Your task to perform on an android device: delete location history Image 0: 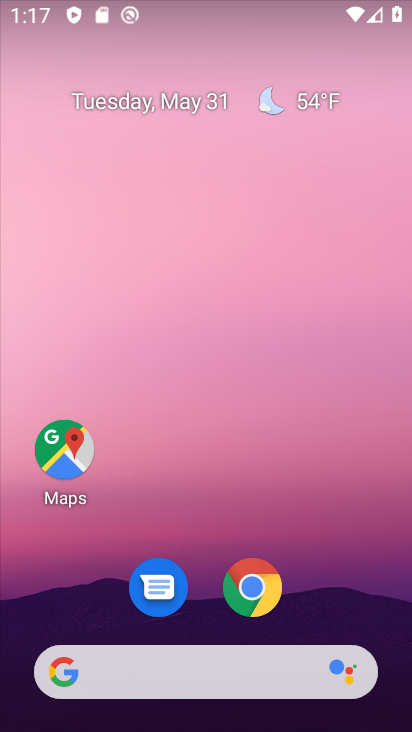
Step 0: drag from (216, 609) to (238, 187)
Your task to perform on an android device: delete location history Image 1: 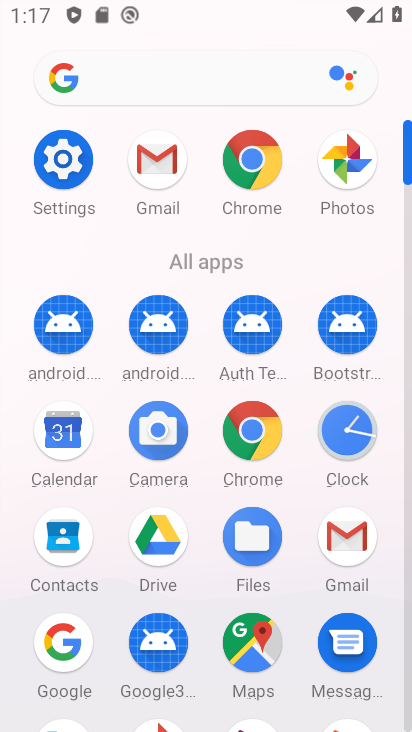
Step 1: click (66, 159)
Your task to perform on an android device: delete location history Image 2: 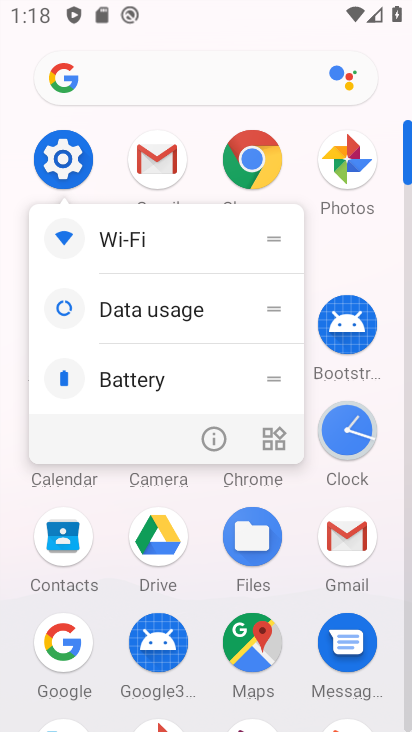
Step 2: click (207, 428)
Your task to perform on an android device: delete location history Image 3: 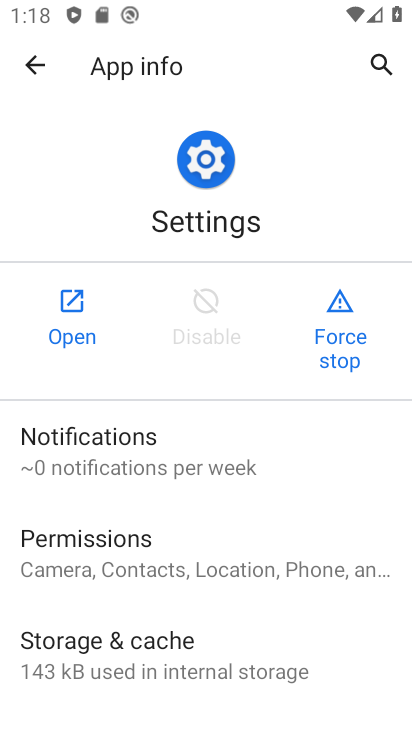
Step 3: click (69, 322)
Your task to perform on an android device: delete location history Image 4: 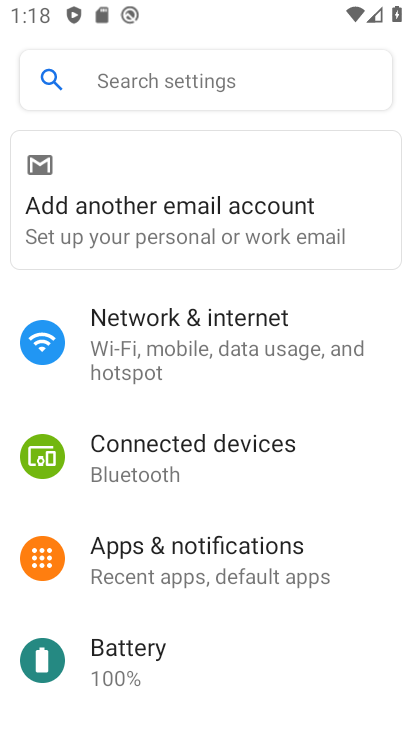
Step 4: drag from (205, 635) to (269, 227)
Your task to perform on an android device: delete location history Image 5: 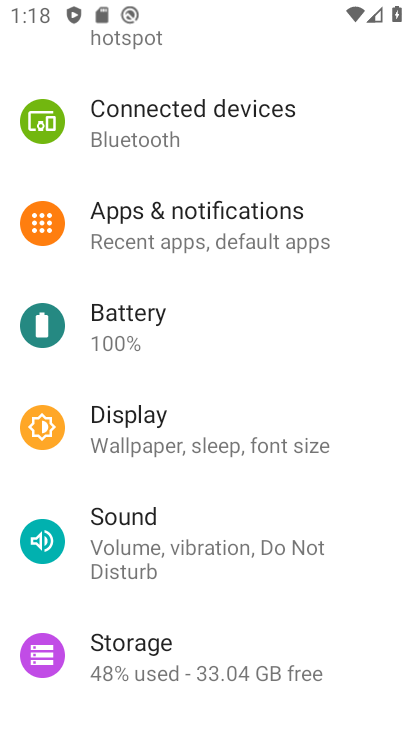
Step 5: drag from (169, 577) to (223, 189)
Your task to perform on an android device: delete location history Image 6: 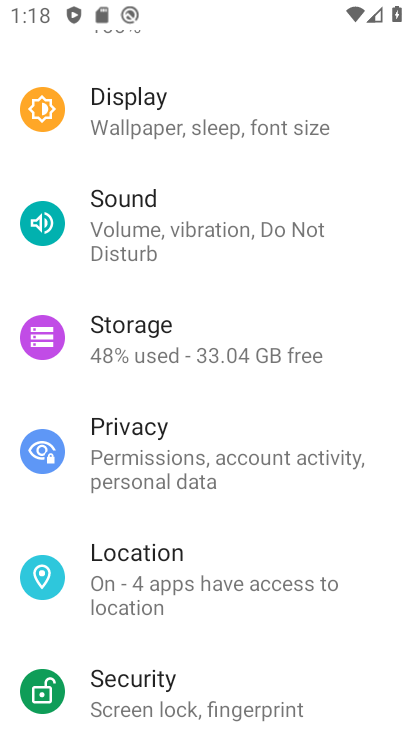
Step 6: click (133, 589)
Your task to perform on an android device: delete location history Image 7: 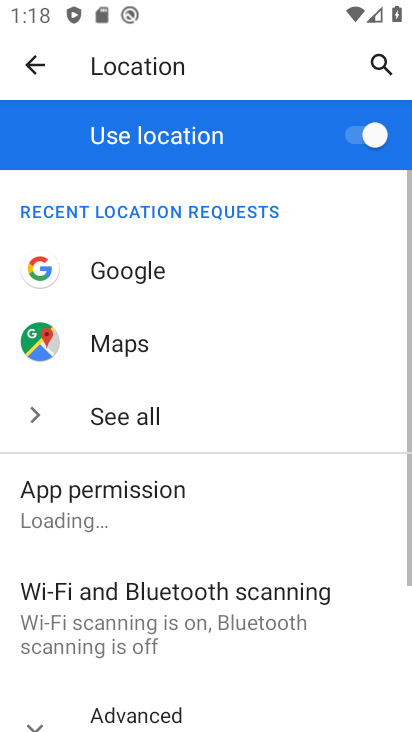
Step 7: drag from (214, 617) to (282, 179)
Your task to perform on an android device: delete location history Image 8: 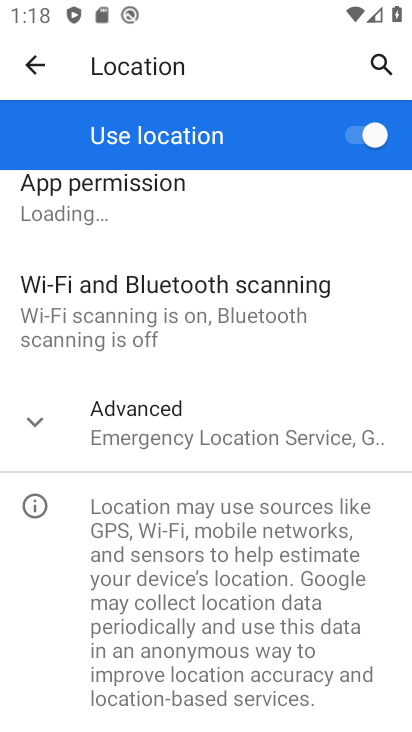
Step 8: click (125, 442)
Your task to perform on an android device: delete location history Image 9: 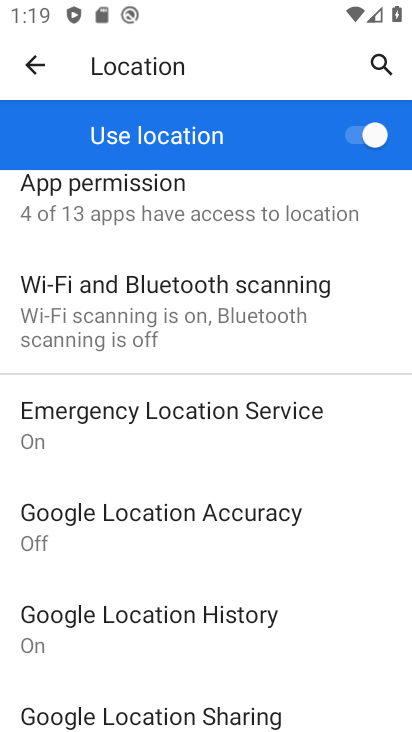
Step 9: drag from (182, 547) to (221, 259)
Your task to perform on an android device: delete location history Image 10: 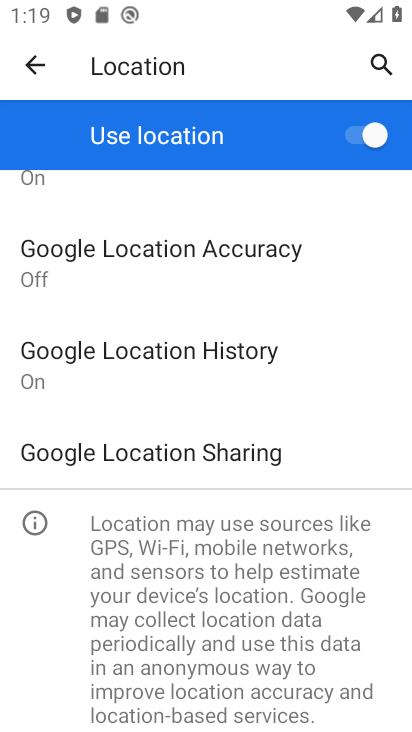
Step 10: click (111, 272)
Your task to perform on an android device: delete location history Image 11: 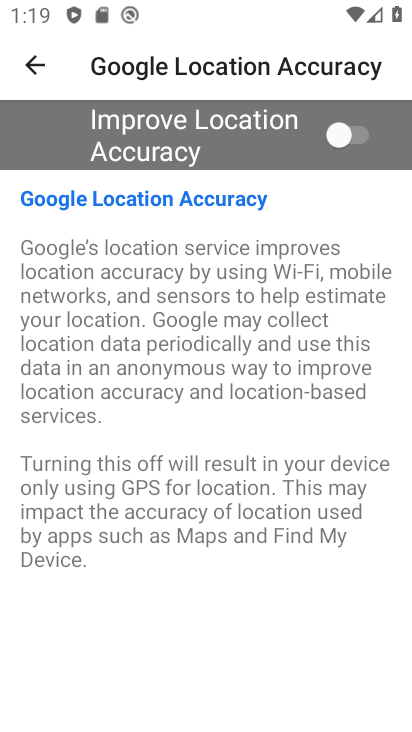
Step 11: drag from (174, 491) to (197, 232)
Your task to perform on an android device: delete location history Image 12: 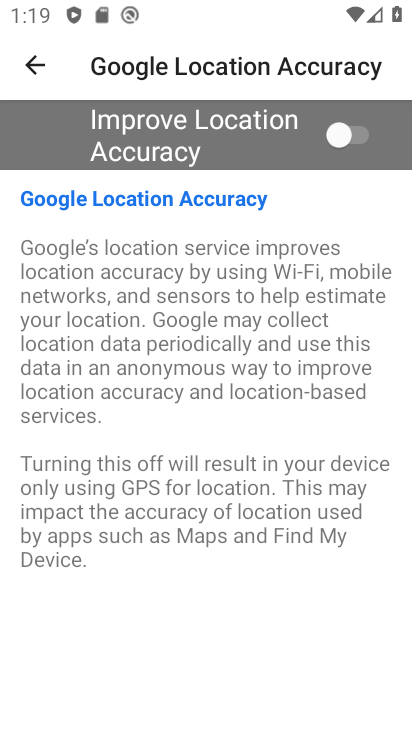
Step 12: drag from (186, 254) to (221, 433)
Your task to perform on an android device: delete location history Image 13: 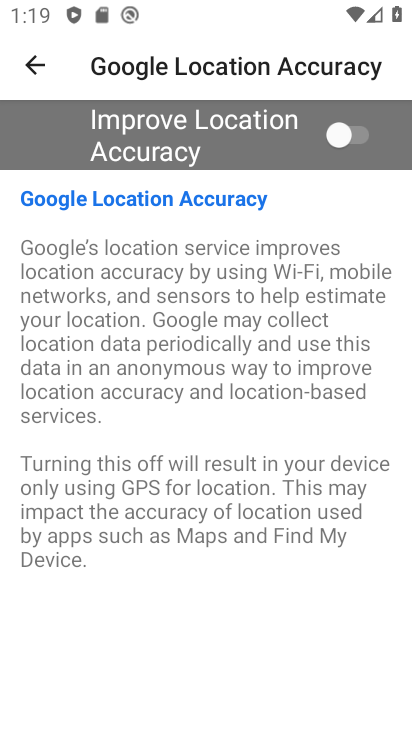
Step 13: click (31, 64)
Your task to perform on an android device: delete location history Image 14: 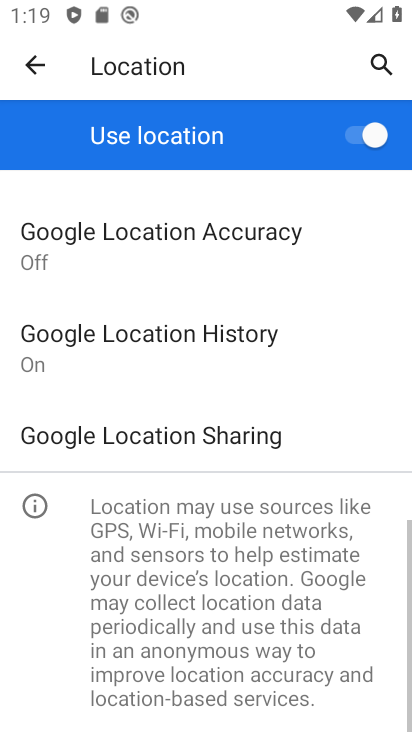
Step 14: click (197, 342)
Your task to perform on an android device: delete location history Image 15: 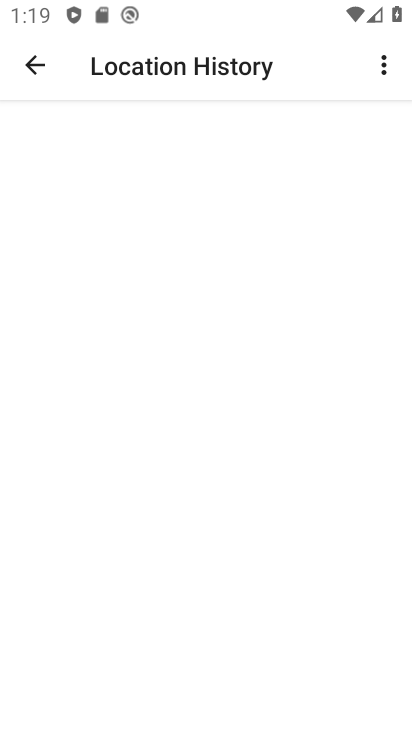
Step 15: drag from (244, 448) to (244, 144)
Your task to perform on an android device: delete location history Image 16: 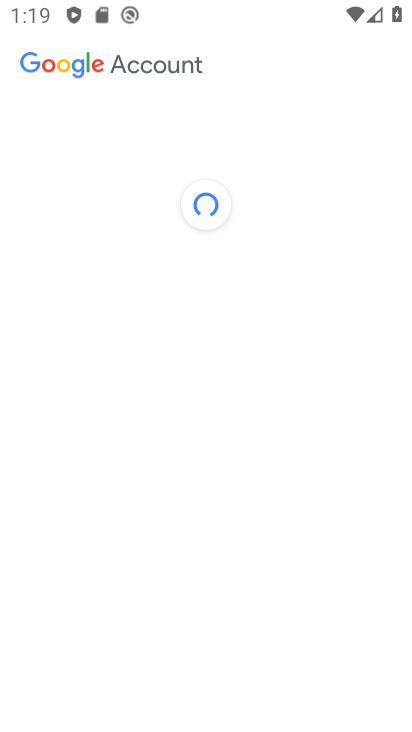
Step 16: drag from (250, 401) to (266, 253)
Your task to perform on an android device: delete location history Image 17: 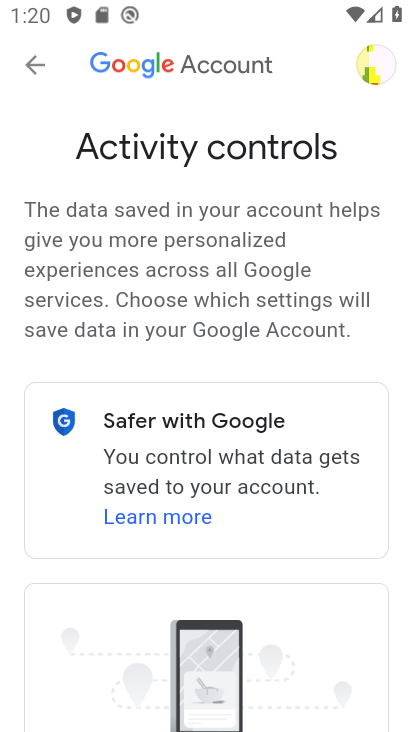
Step 17: drag from (248, 530) to (313, 16)
Your task to perform on an android device: delete location history Image 18: 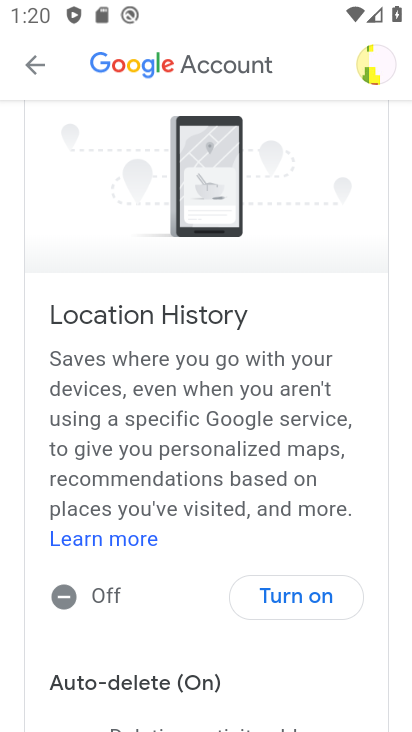
Step 18: drag from (138, 555) to (200, 166)
Your task to perform on an android device: delete location history Image 19: 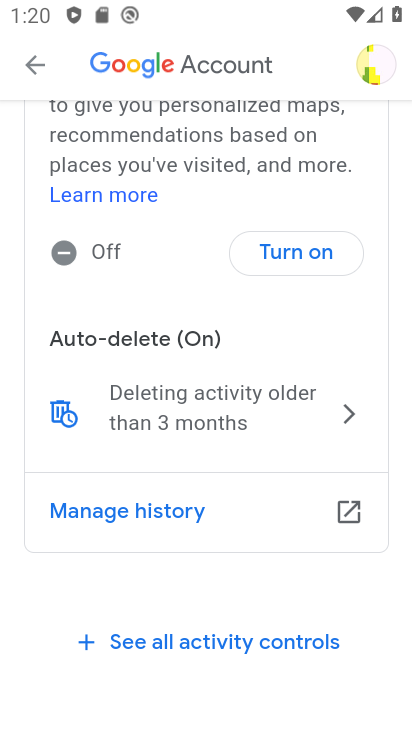
Step 19: click (51, 406)
Your task to perform on an android device: delete location history Image 20: 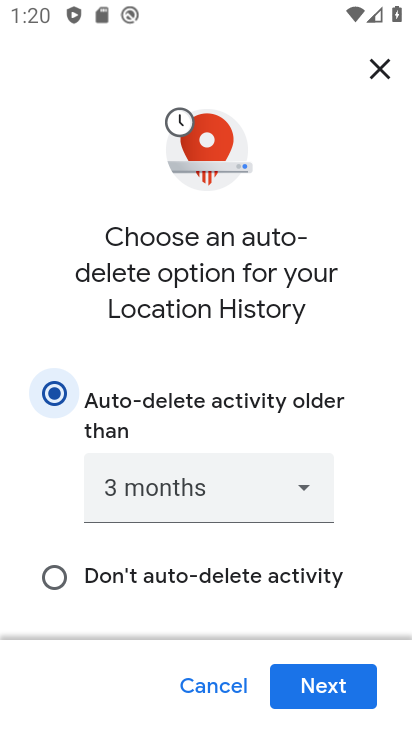
Step 20: click (318, 679)
Your task to perform on an android device: delete location history Image 21: 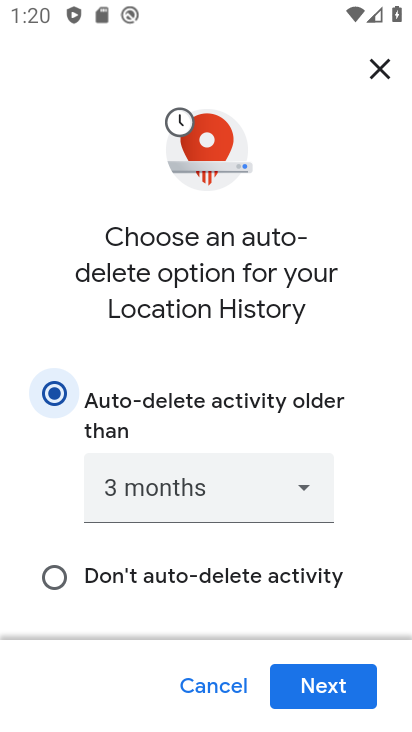
Step 21: click (317, 680)
Your task to perform on an android device: delete location history Image 22: 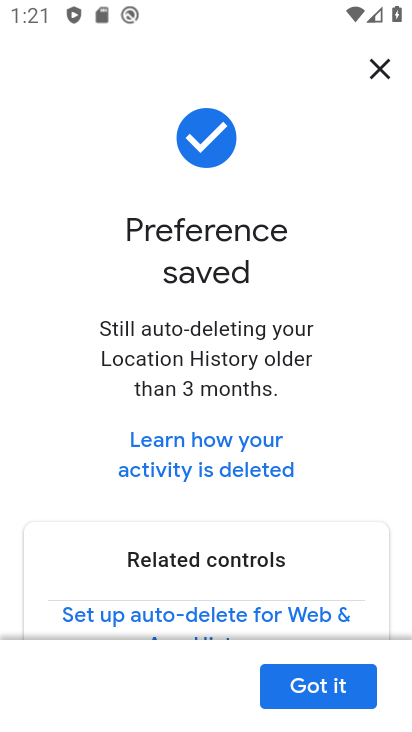
Step 22: task complete